Your task to perform on an android device: turn off translation in the chrome app Image 0: 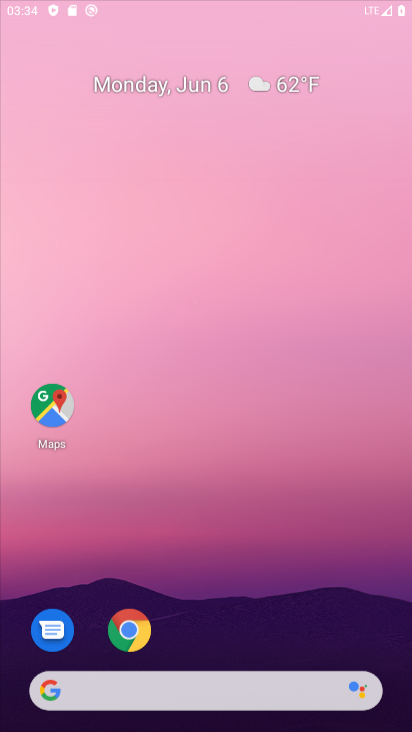
Step 0: press home button
Your task to perform on an android device: turn off translation in the chrome app Image 1: 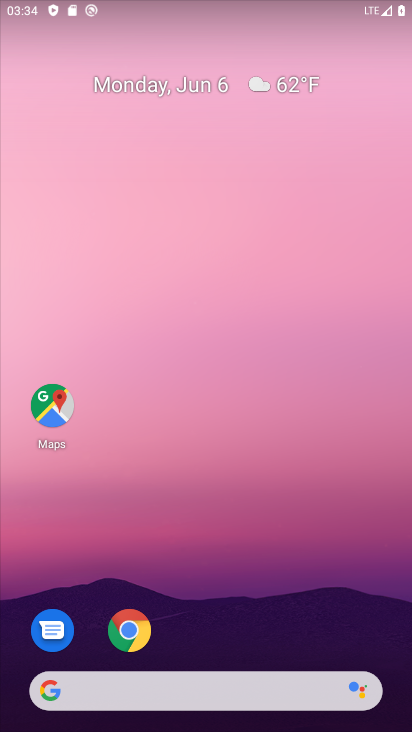
Step 1: click (118, 618)
Your task to perform on an android device: turn off translation in the chrome app Image 2: 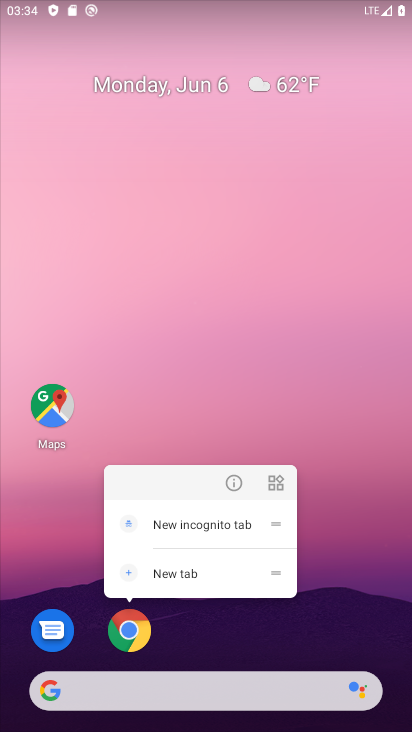
Step 2: click (118, 618)
Your task to perform on an android device: turn off translation in the chrome app Image 3: 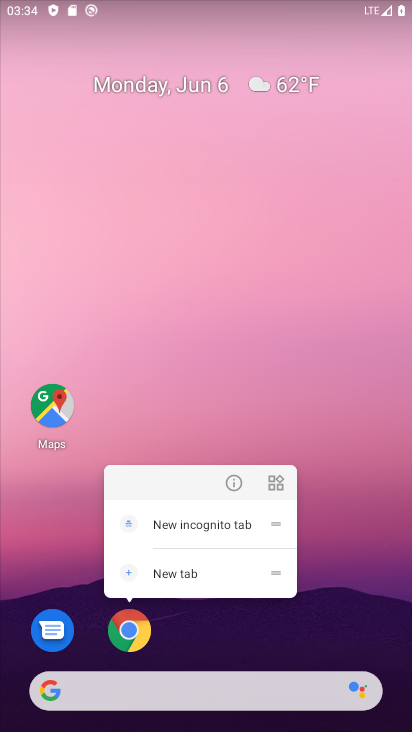
Step 3: click (118, 618)
Your task to perform on an android device: turn off translation in the chrome app Image 4: 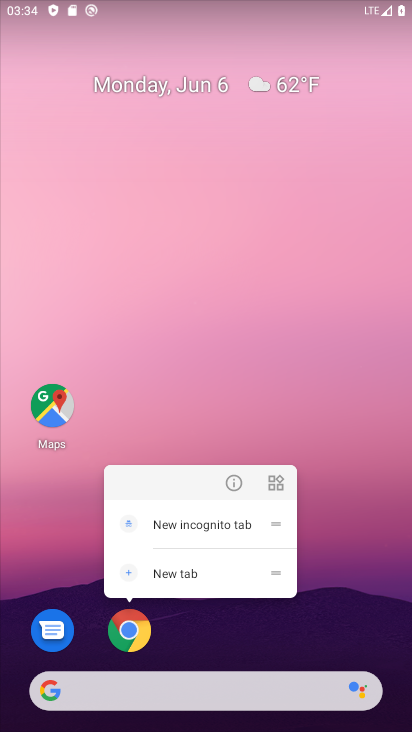
Step 4: click (123, 629)
Your task to perform on an android device: turn off translation in the chrome app Image 5: 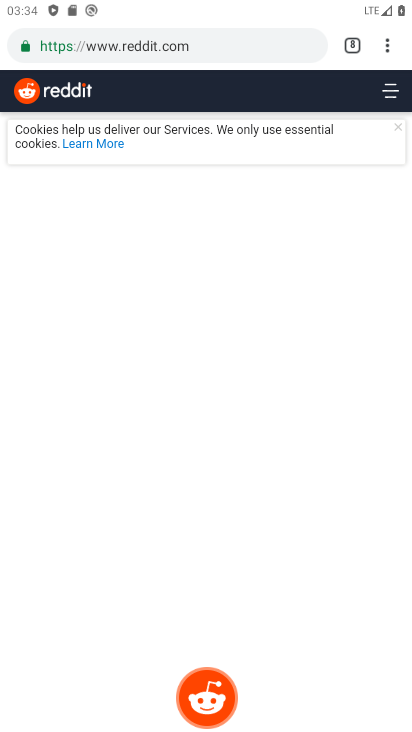
Step 5: click (375, 38)
Your task to perform on an android device: turn off translation in the chrome app Image 6: 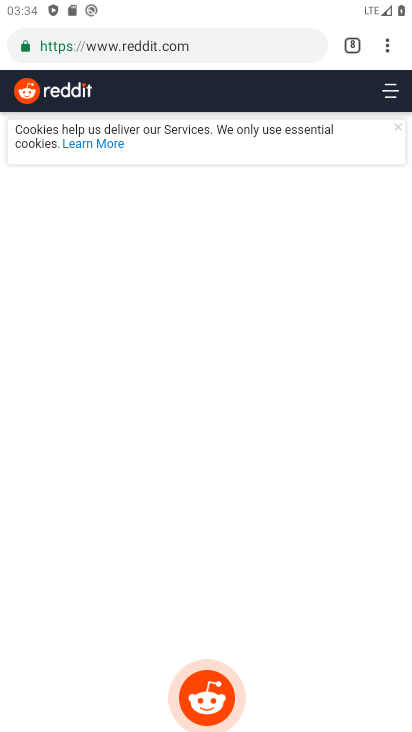
Step 6: drag from (375, 38) to (212, 525)
Your task to perform on an android device: turn off translation in the chrome app Image 7: 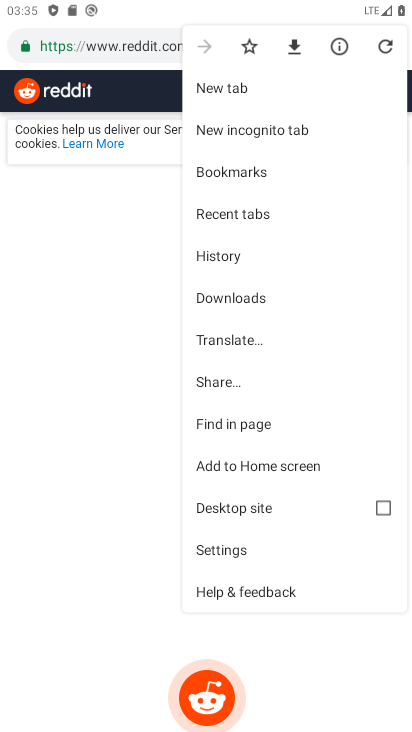
Step 7: click (211, 546)
Your task to perform on an android device: turn off translation in the chrome app Image 8: 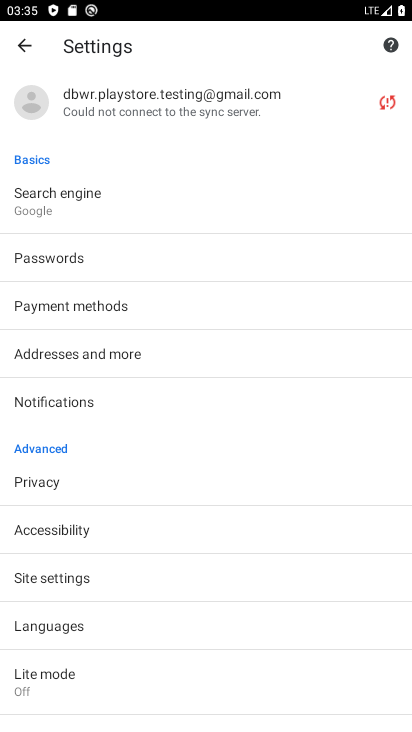
Step 8: click (63, 615)
Your task to perform on an android device: turn off translation in the chrome app Image 9: 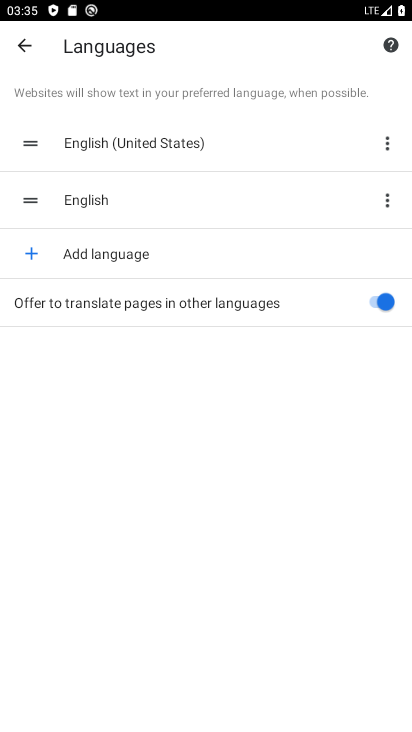
Step 9: click (365, 293)
Your task to perform on an android device: turn off translation in the chrome app Image 10: 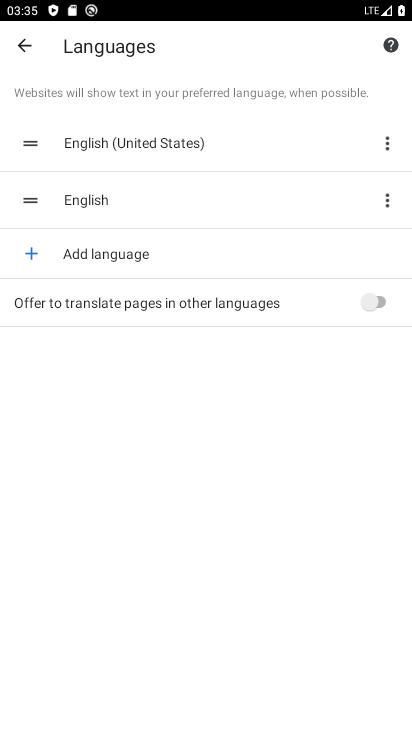
Step 10: task complete